Your task to perform on an android device: change the clock style Image 0: 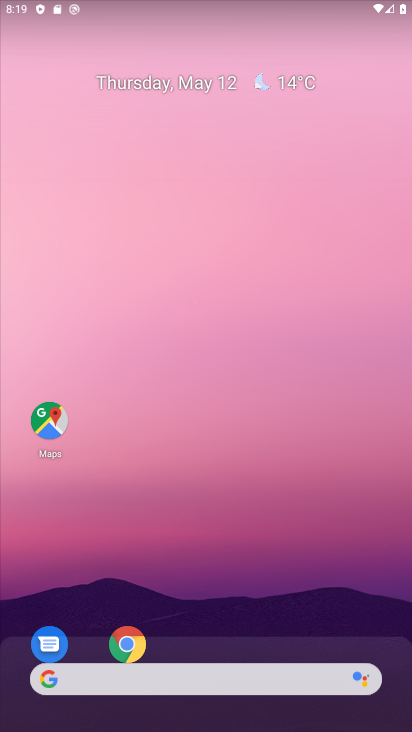
Step 0: drag from (281, 562) to (257, 43)
Your task to perform on an android device: change the clock style Image 1: 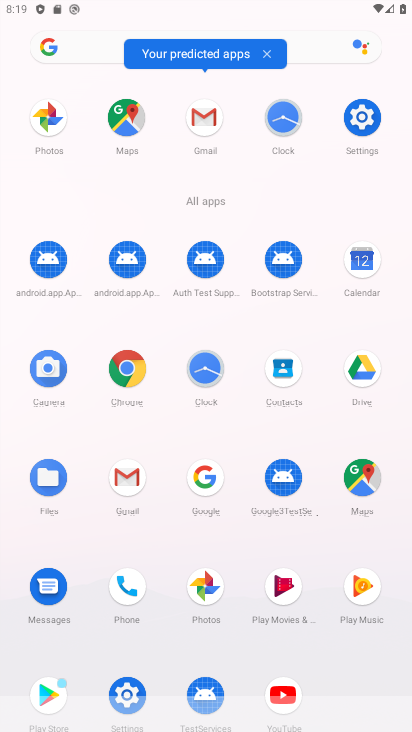
Step 1: click (287, 119)
Your task to perform on an android device: change the clock style Image 2: 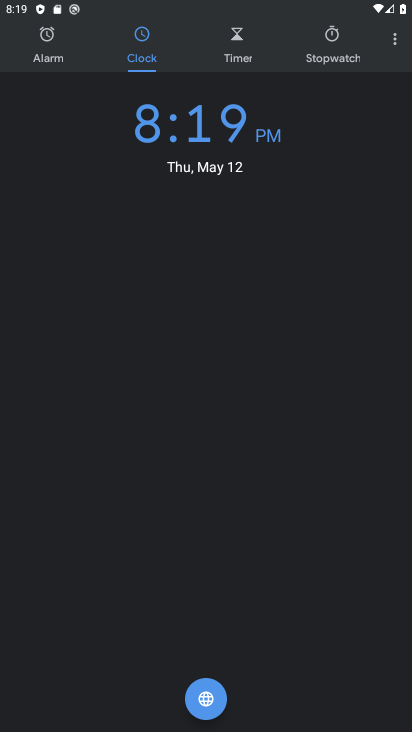
Step 2: click (398, 36)
Your task to perform on an android device: change the clock style Image 3: 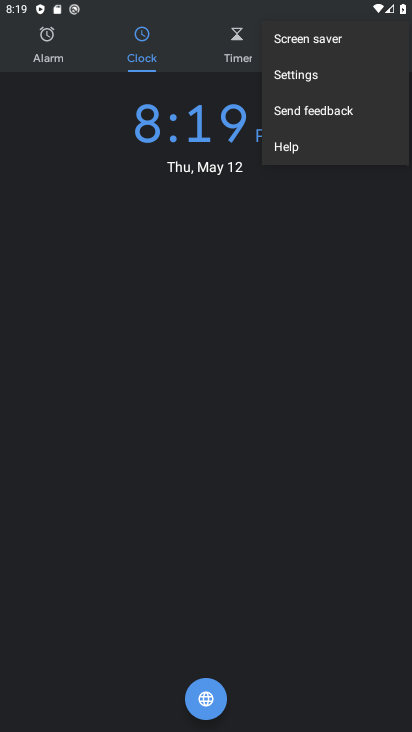
Step 3: click (328, 68)
Your task to perform on an android device: change the clock style Image 4: 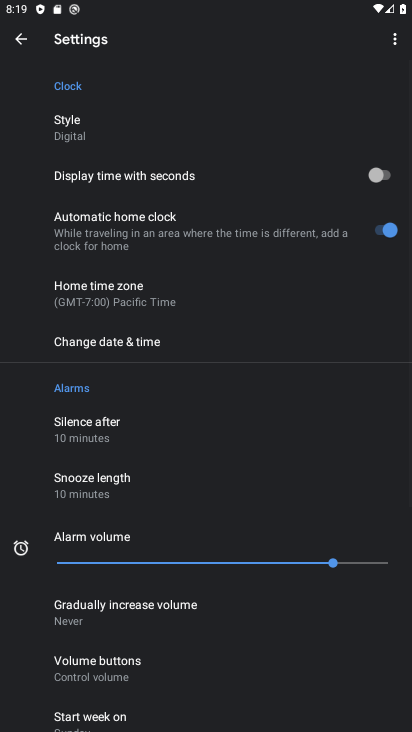
Step 4: click (272, 124)
Your task to perform on an android device: change the clock style Image 5: 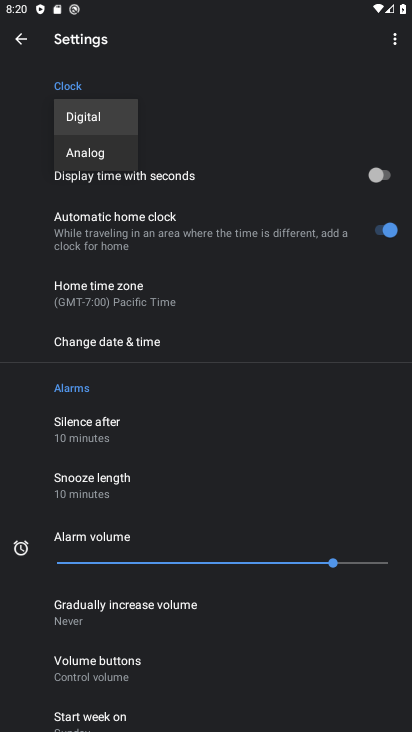
Step 5: click (129, 163)
Your task to perform on an android device: change the clock style Image 6: 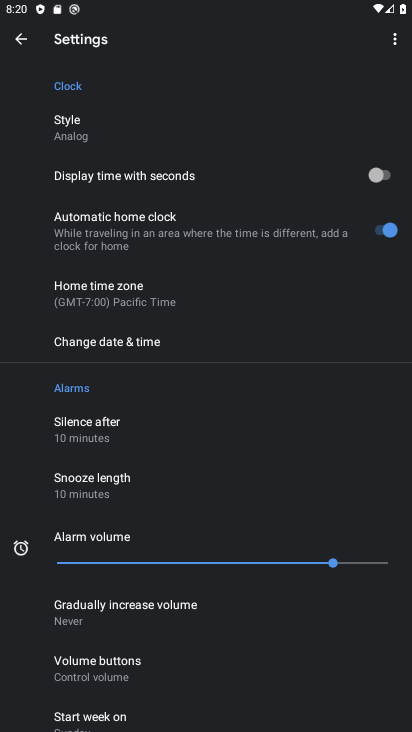
Step 6: task complete